Your task to perform on an android device: Clear the shopping cart on ebay. Search for "razer blade" on ebay, select the first entry, and add it to the cart. Image 0: 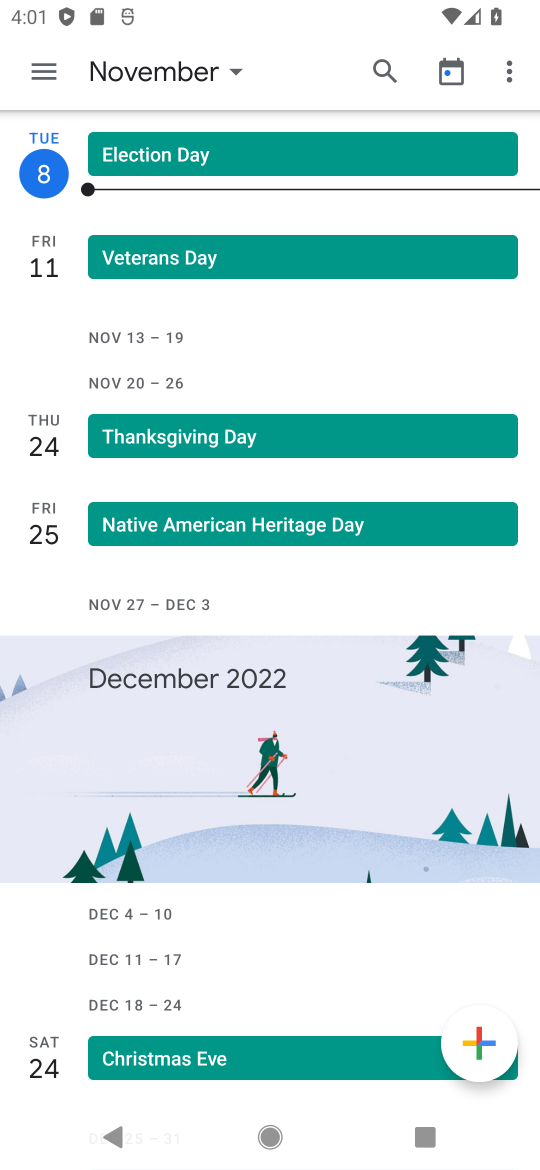
Step 0: press home button
Your task to perform on an android device: Clear the shopping cart on ebay. Search for "razer blade" on ebay, select the first entry, and add it to the cart. Image 1: 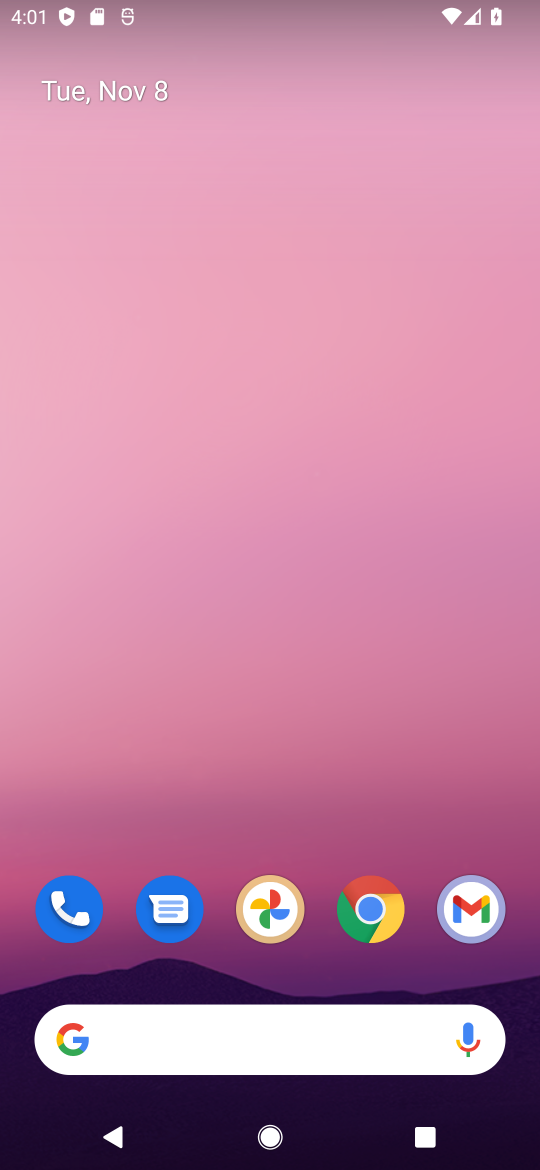
Step 1: click (371, 909)
Your task to perform on an android device: Clear the shopping cart on ebay. Search for "razer blade" on ebay, select the first entry, and add it to the cart. Image 2: 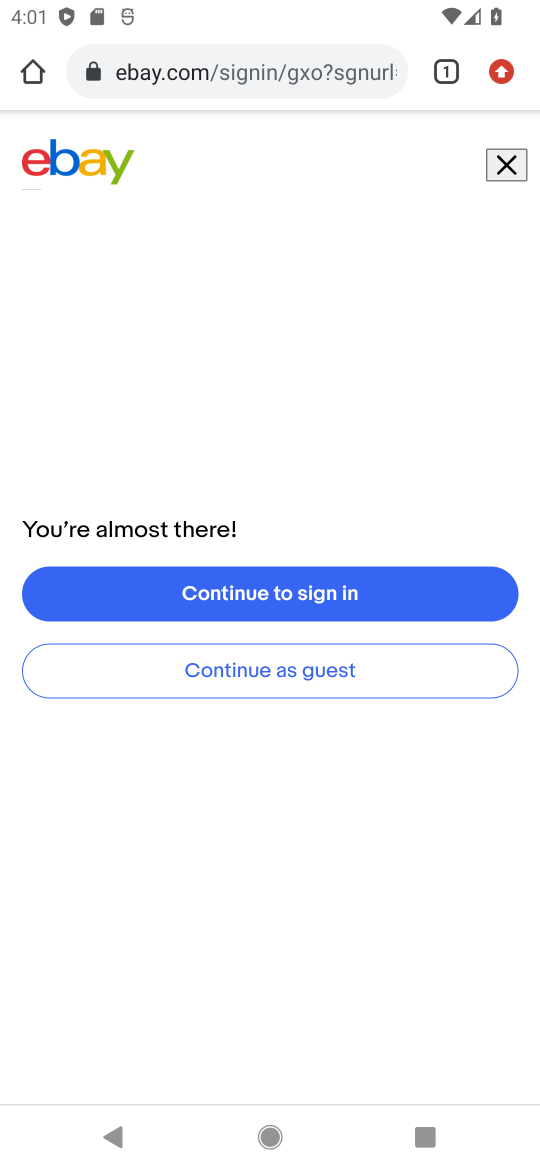
Step 2: press back button
Your task to perform on an android device: Clear the shopping cart on ebay. Search for "razer blade" on ebay, select the first entry, and add it to the cart. Image 3: 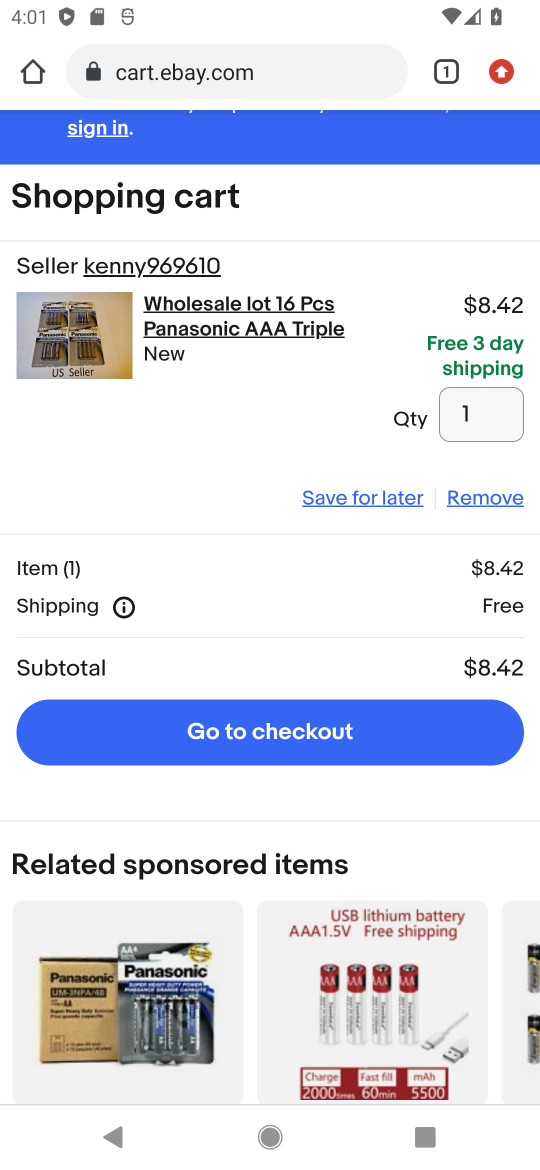
Step 3: drag from (360, 214) to (232, 898)
Your task to perform on an android device: Clear the shopping cart on ebay. Search for "razer blade" on ebay, select the first entry, and add it to the cart. Image 4: 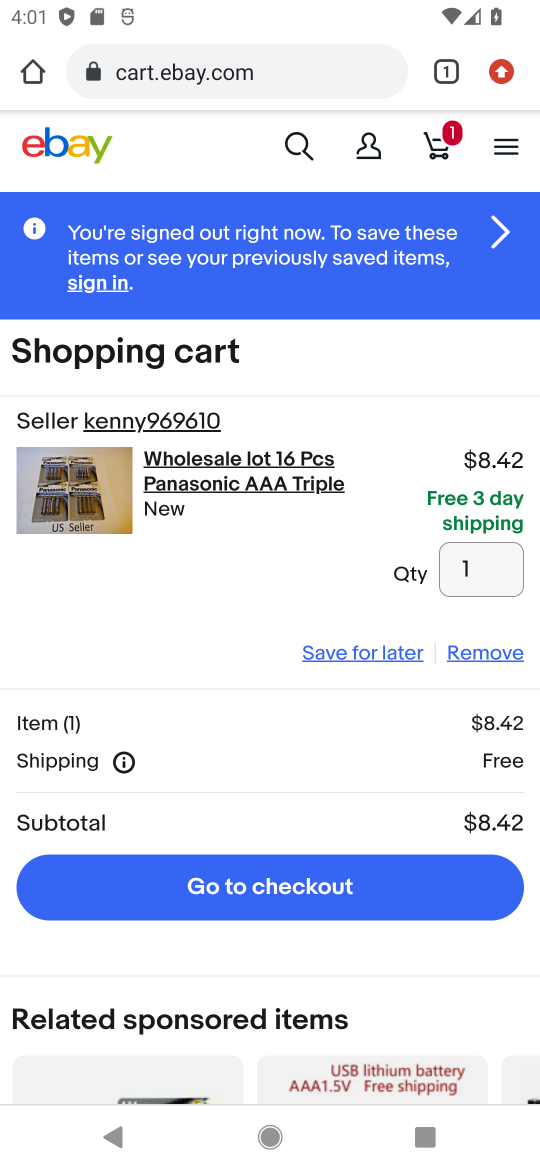
Step 4: click (288, 131)
Your task to perform on an android device: Clear the shopping cart on ebay. Search for "razer blade" on ebay, select the first entry, and add it to the cart. Image 5: 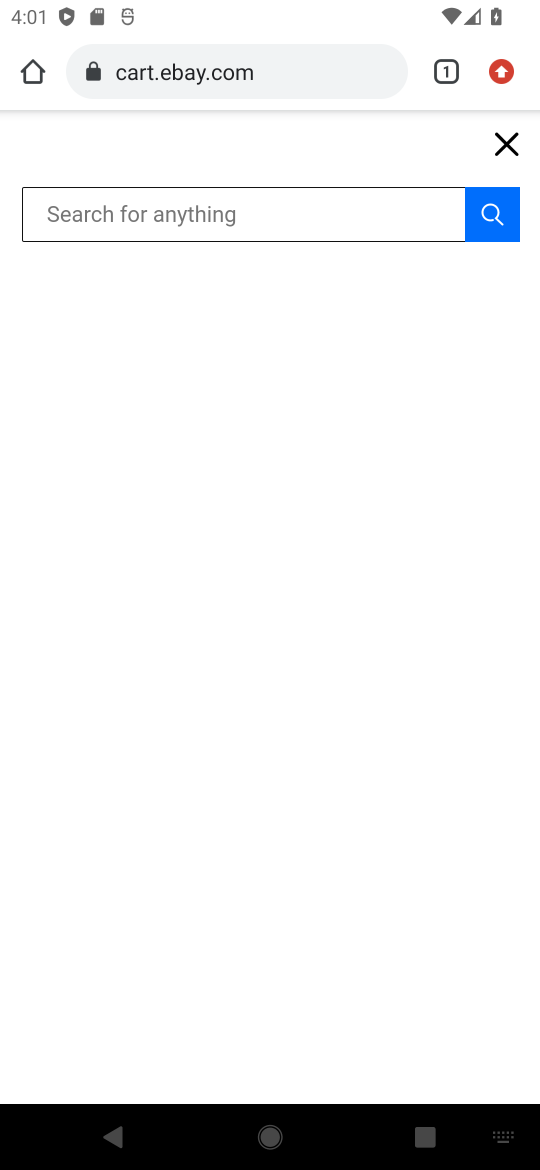
Step 5: click (269, 204)
Your task to perform on an android device: Clear the shopping cart on ebay. Search for "razer blade" on ebay, select the first entry, and add it to the cart. Image 6: 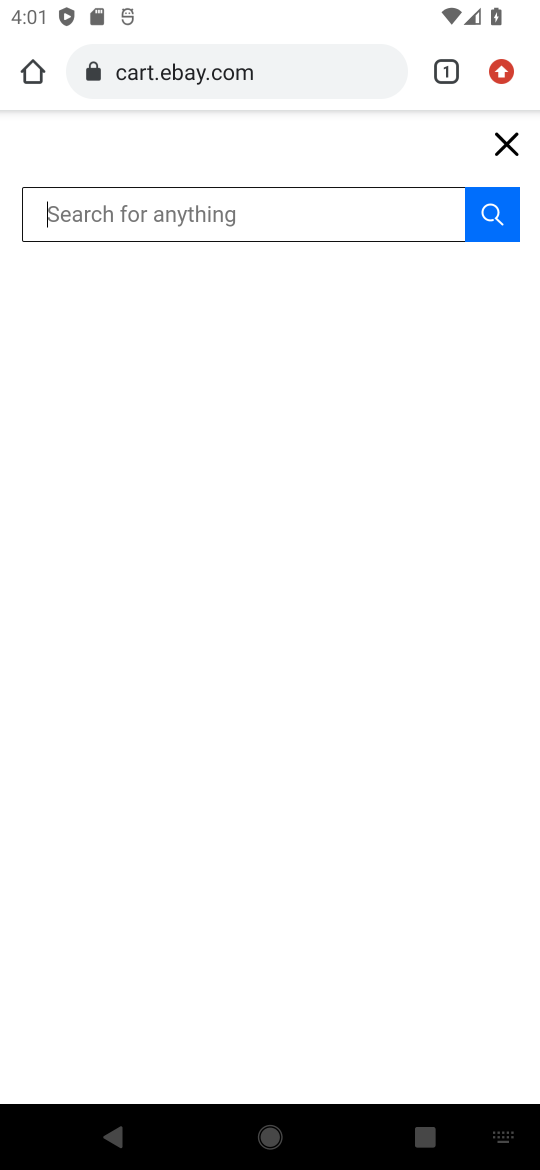
Step 6: type "razer blade"
Your task to perform on an android device: Clear the shopping cart on ebay. Search for "razer blade" on ebay, select the first entry, and add it to the cart. Image 7: 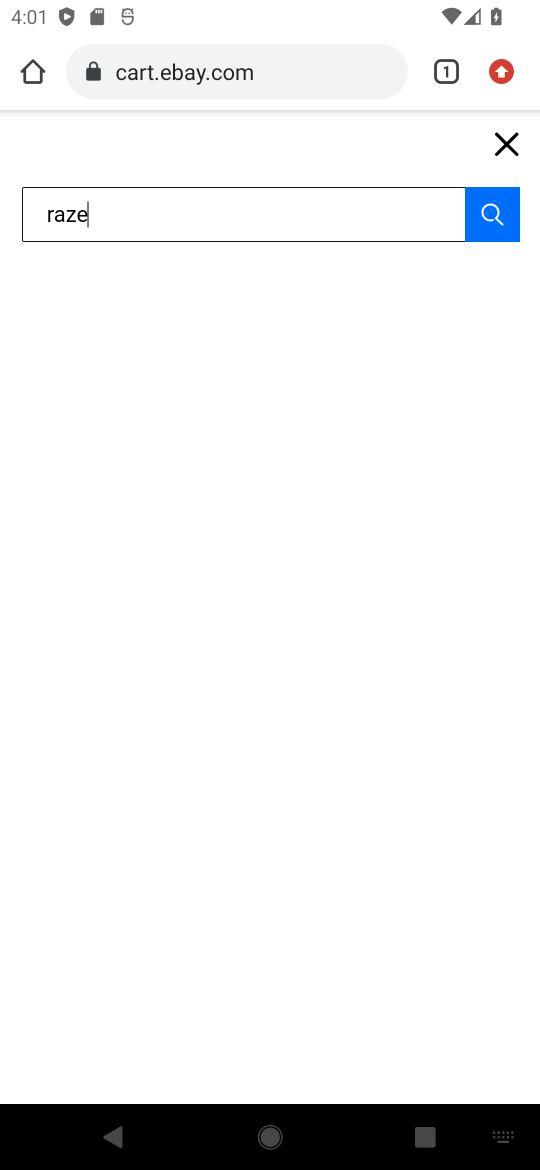
Step 7: press enter
Your task to perform on an android device: Clear the shopping cart on ebay. Search for "razer blade" on ebay, select the first entry, and add it to the cart. Image 8: 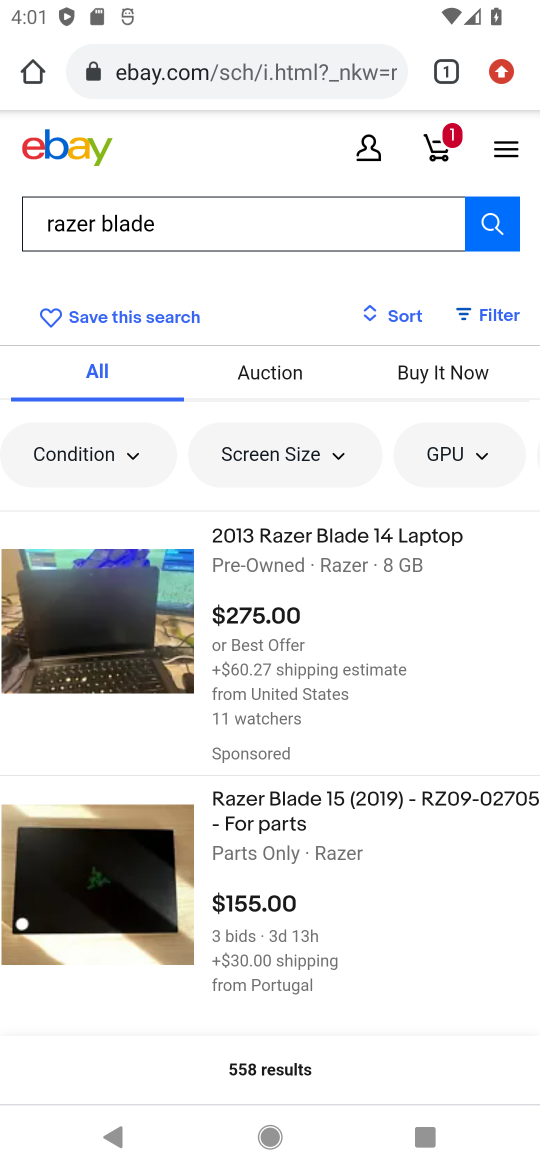
Step 8: click (307, 586)
Your task to perform on an android device: Clear the shopping cart on ebay. Search for "razer blade" on ebay, select the first entry, and add it to the cart. Image 9: 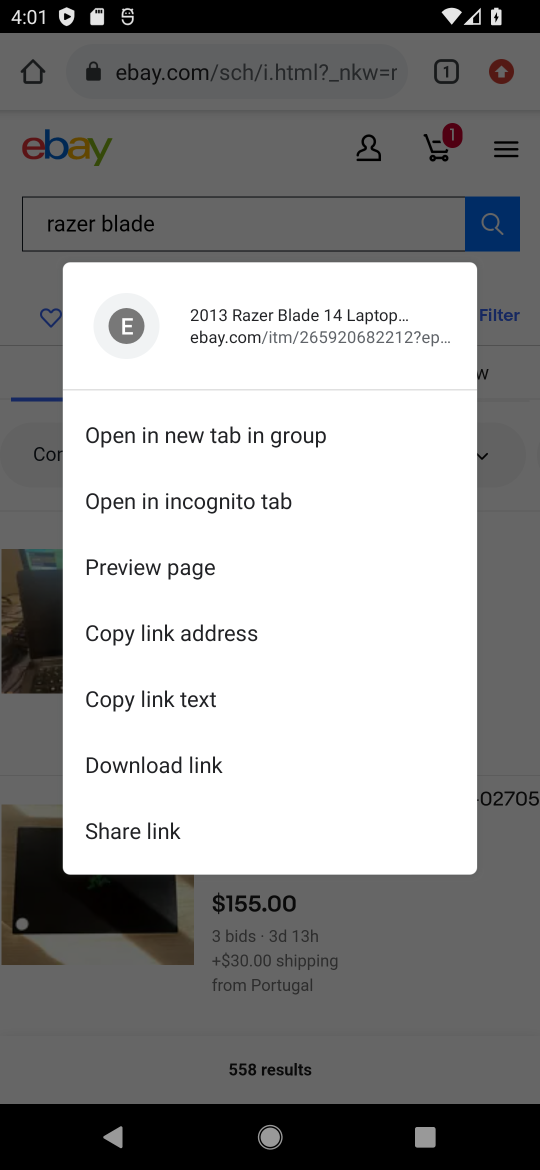
Step 9: click (508, 703)
Your task to perform on an android device: Clear the shopping cart on ebay. Search for "razer blade" on ebay, select the first entry, and add it to the cart. Image 10: 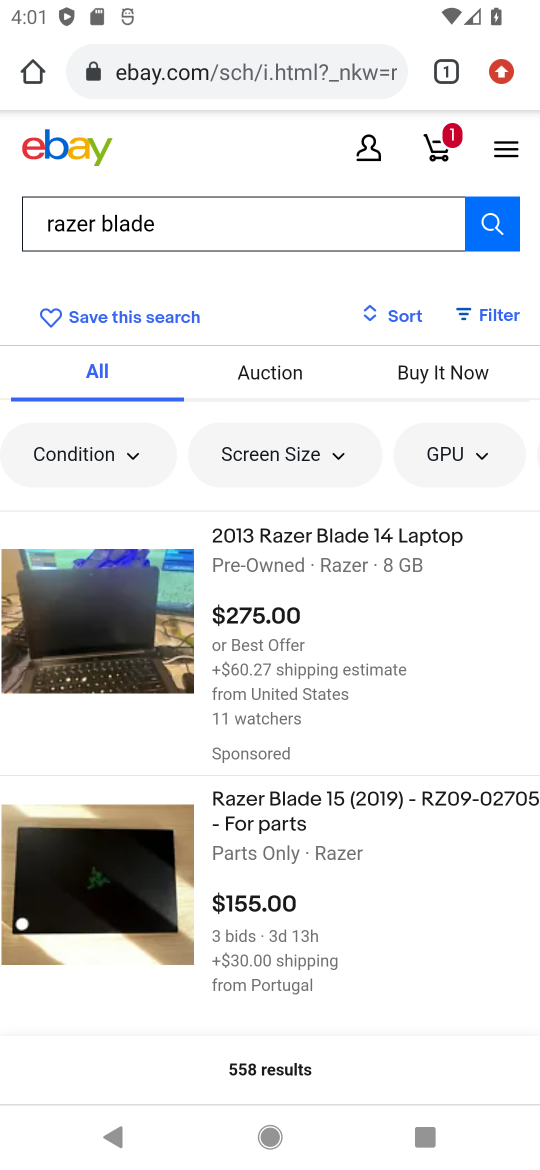
Step 10: click (243, 558)
Your task to perform on an android device: Clear the shopping cart on ebay. Search for "razer blade" on ebay, select the first entry, and add it to the cart. Image 11: 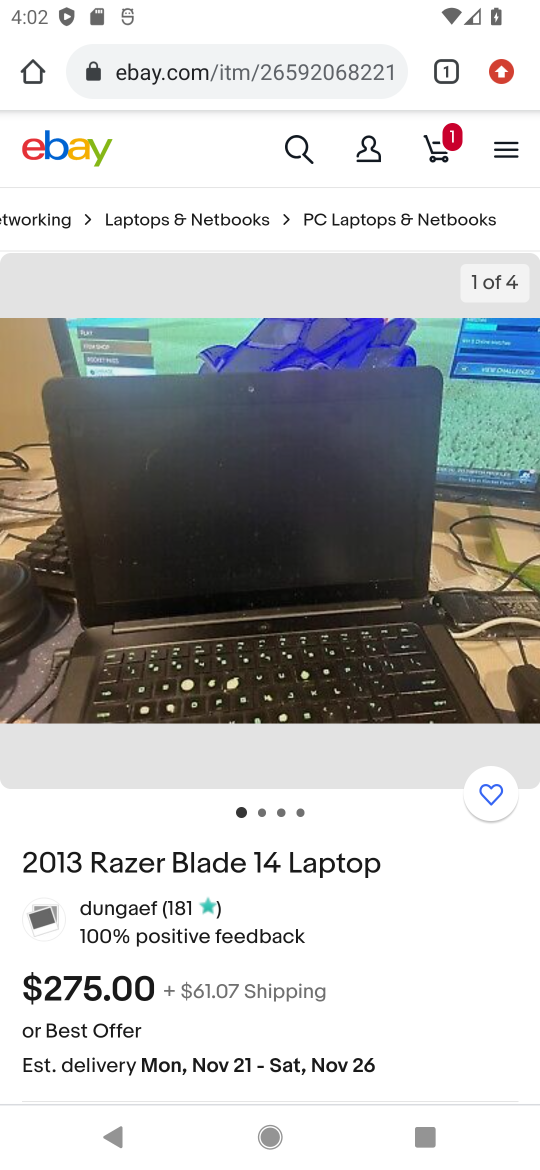
Step 11: drag from (292, 958) to (514, 363)
Your task to perform on an android device: Clear the shopping cart on ebay. Search for "razer blade" on ebay, select the first entry, and add it to the cart. Image 12: 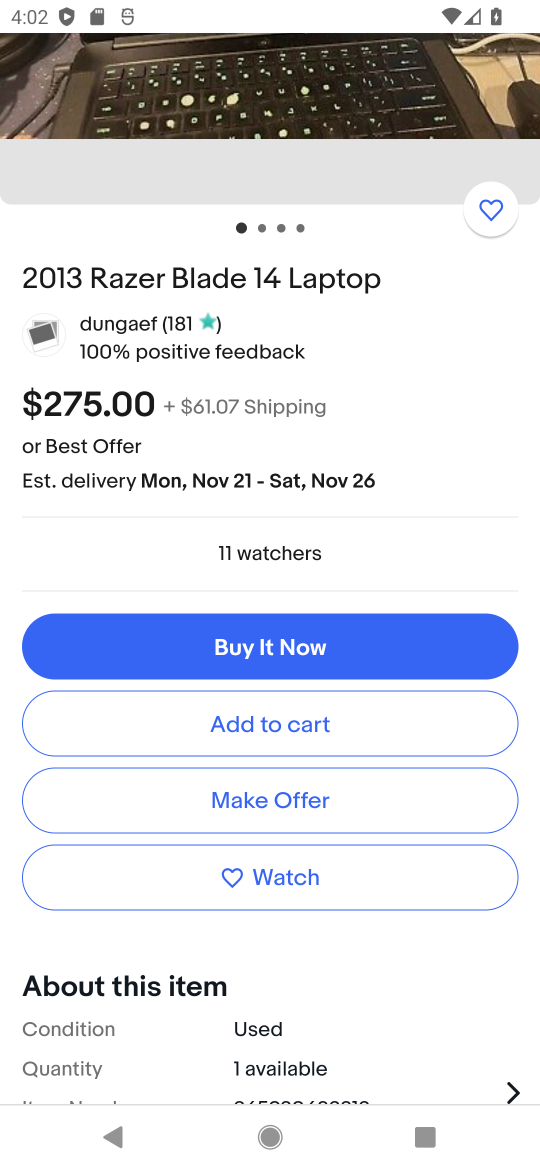
Step 12: click (283, 718)
Your task to perform on an android device: Clear the shopping cart on ebay. Search for "razer blade" on ebay, select the first entry, and add it to the cart. Image 13: 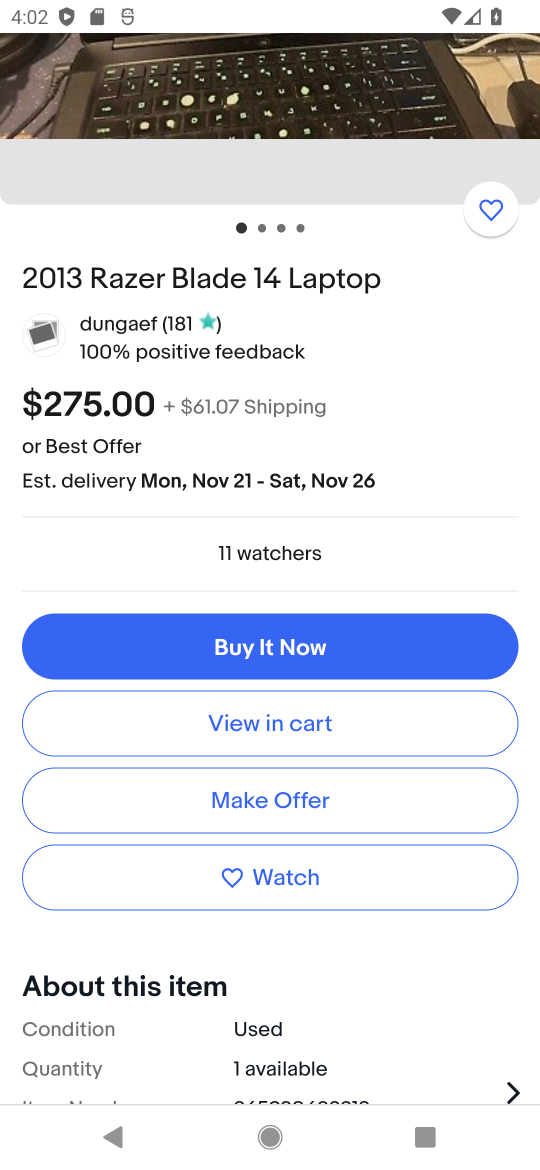
Step 13: click (268, 728)
Your task to perform on an android device: Clear the shopping cart on ebay. Search for "razer blade" on ebay, select the first entry, and add it to the cart. Image 14: 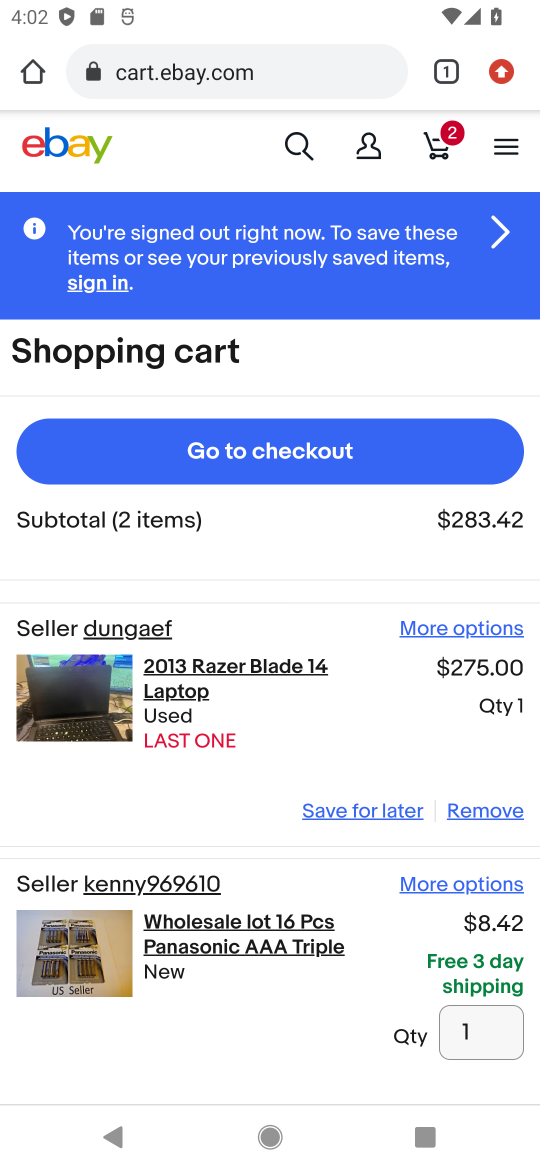
Step 14: drag from (342, 1025) to (429, 737)
Your task to perform on an android device: Clear the shopping cart on ebay. Search for "razer blade" on ebay, select the first entry, and add it to the cart. Image 15: 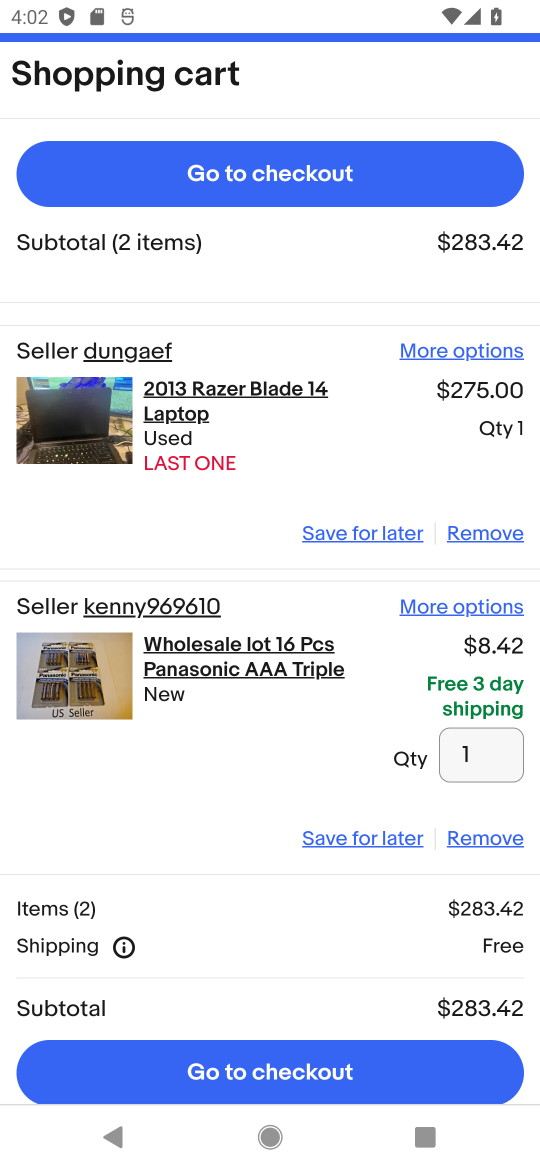
Step 15: click (472, 837)
Your task to perform on an android device: Clear the shopping cart on ebay. Search for "razer blade" on ebay, select the first entry, and add it to the cart. Image 16: 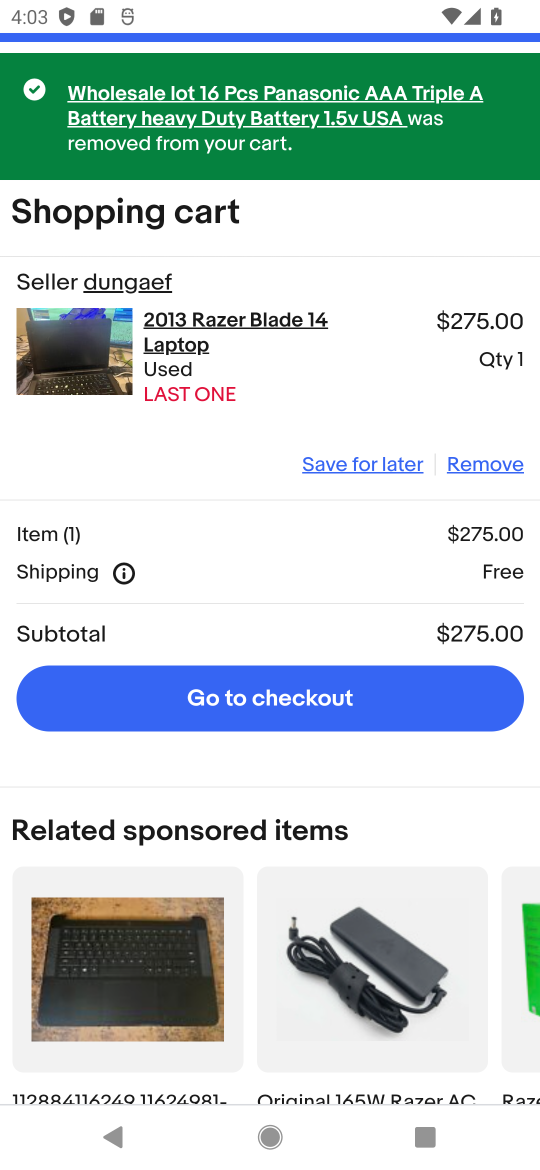
Step 16: task complete